Your task to perform on an android device: Open Yahoo.com Image 0: 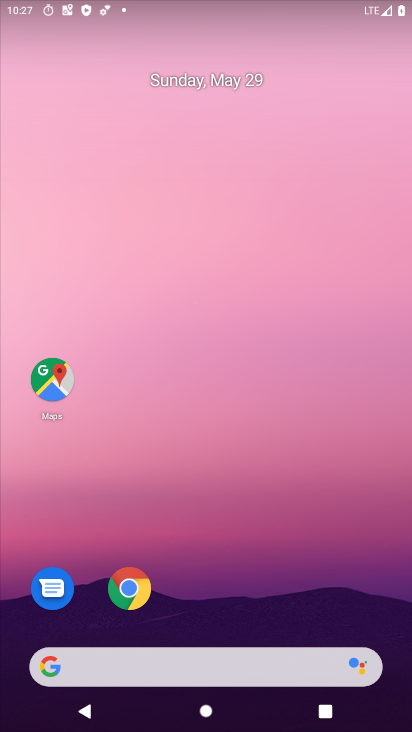
Step 0: drag from (232, 607) to (252, 173)
Your task to perform on an android device: Open Yahoo.com Image 1: 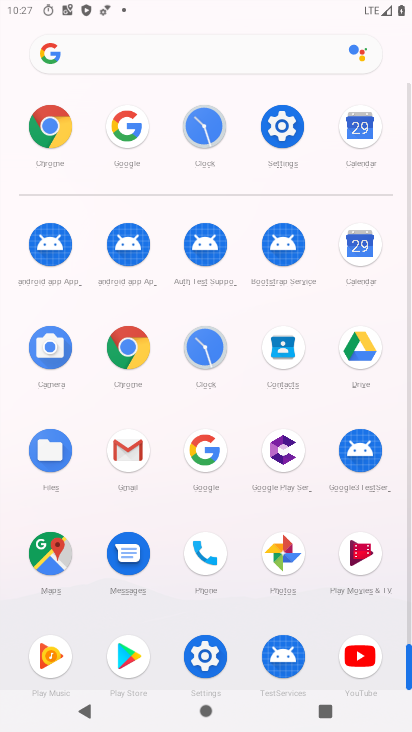
Step 1: click (123, 362)
Your task to perform on an android device: Open Yahoo.com Image 2: 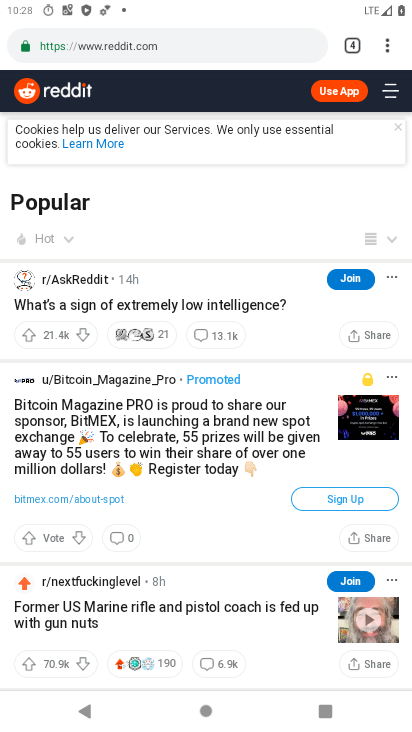
Step 2: click (354, 39)
Your task to perform on an android device: Open Yahoo.com Image 3: 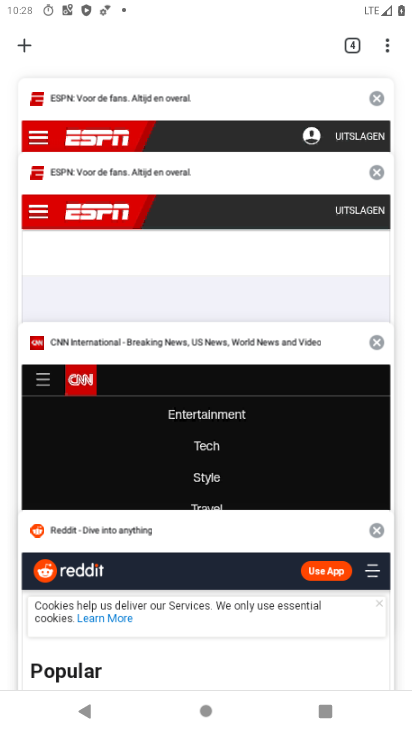
Step 3: click (27, 50)
Your task to perform on an android device: Open Yahoo.com Image 4: 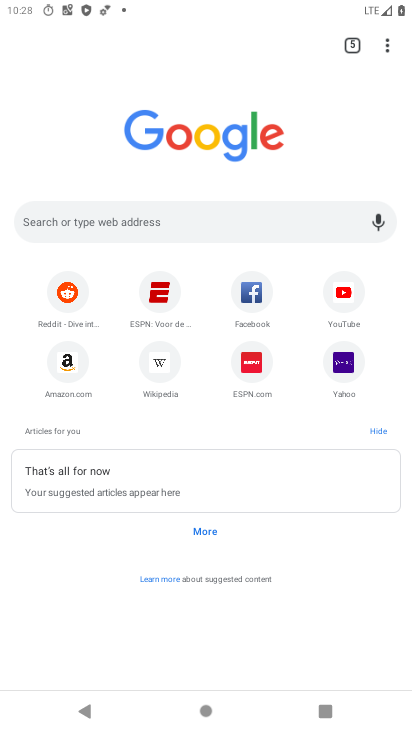
Step 4: click (342, 377)
Your task to perform on an android device: Open Yahoo.com Image 5: 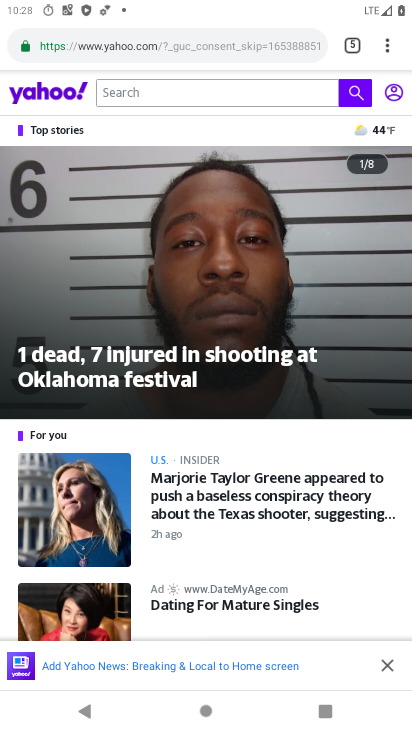
Step 5: task complete